Your task to perform on an android device: toggle data saver in the chrome app Image 0: 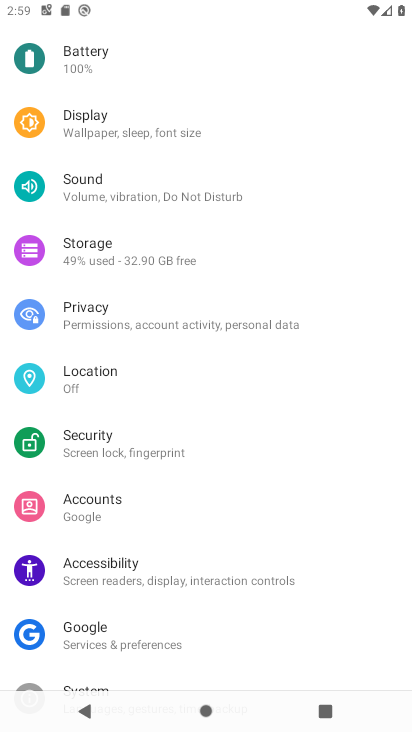
Step 0: drag from (211, 594) to (224, 1)
Your task to perform on an android device: toggle data saver in the chrome app Image 1: 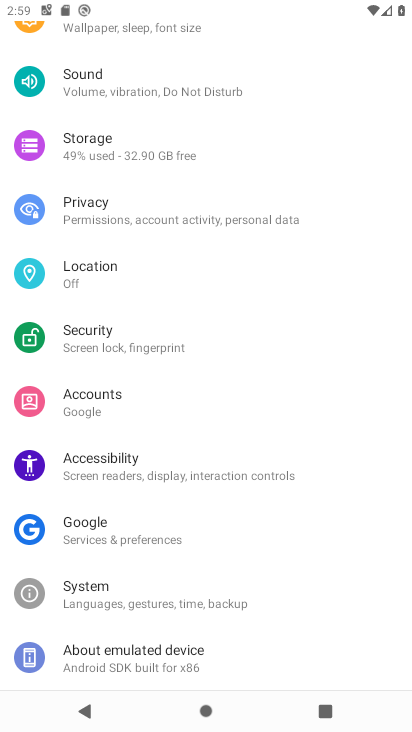
Step 1: drag from (190, 231) to (206, 605)
Your task to perform on an android device: toggle data saver in the chrome app Image 2: 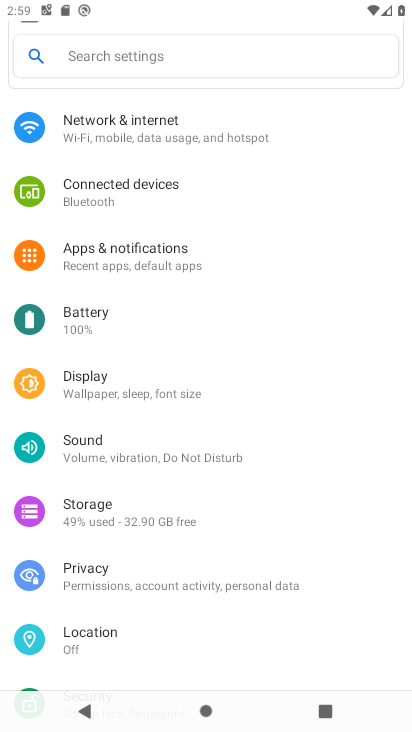
Step 2: drag from (180, 582) to (273, 101)
Your task to perform on an android device: toggle data saver in the chrome app Image 3: 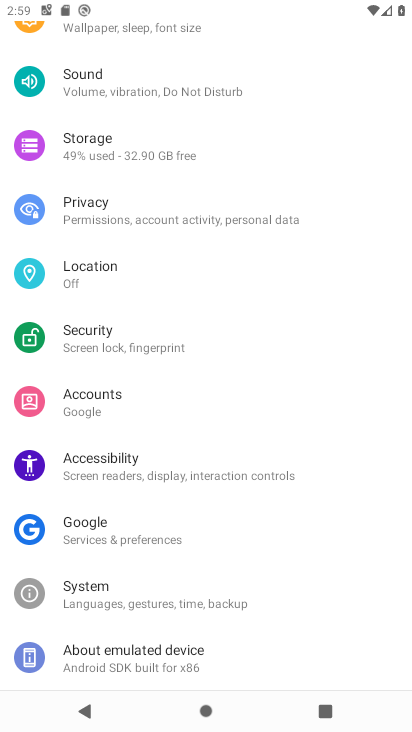
Step 3: drag from (166, 608) to (200, 341)
Your task to perform on an android device: toggle data saver in the chrome app Image 4: 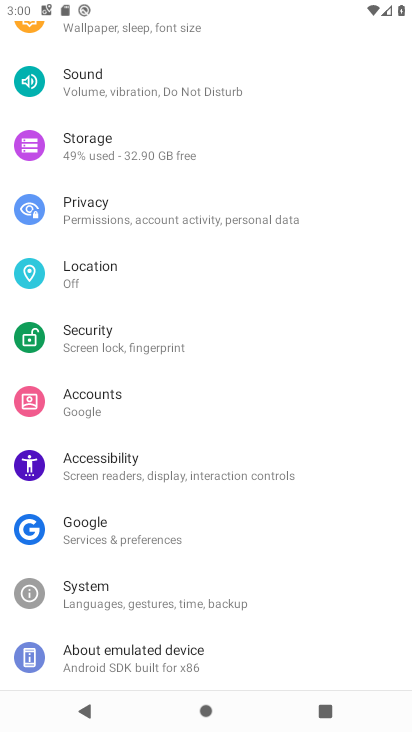
Step 4: click (123, 600)
Your task to perform on an android device: toggle data saver in the chrome app Image 5: 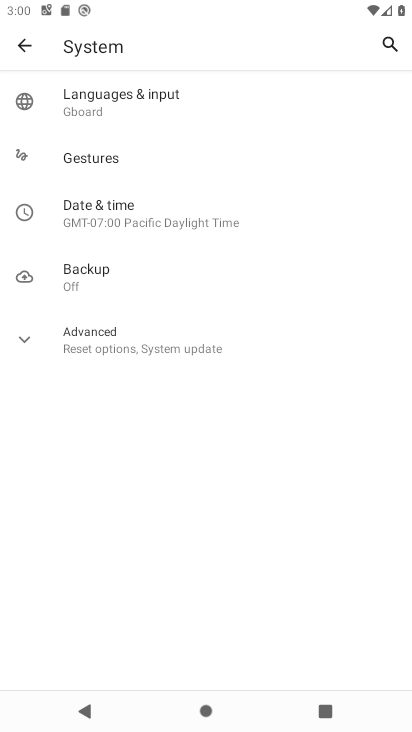
Step 5: press home button
Your task to perform on an android device: toggle data saver in the chrome app Image 6: 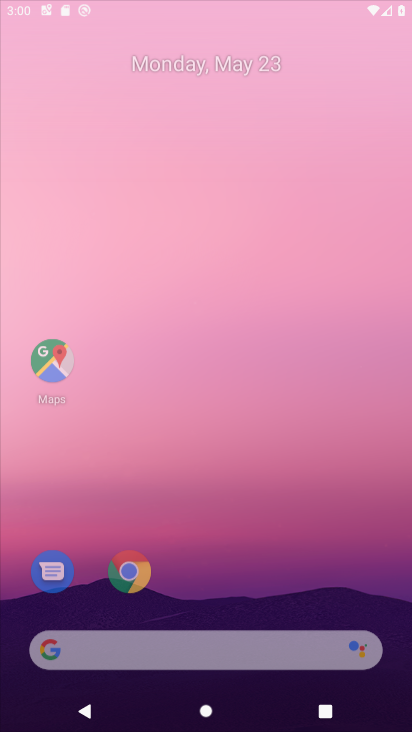
Step 6: drag from (234, 691) to (269, 199)
Your task to perform on an android device: toggle data saver in the chrome app Image 7: 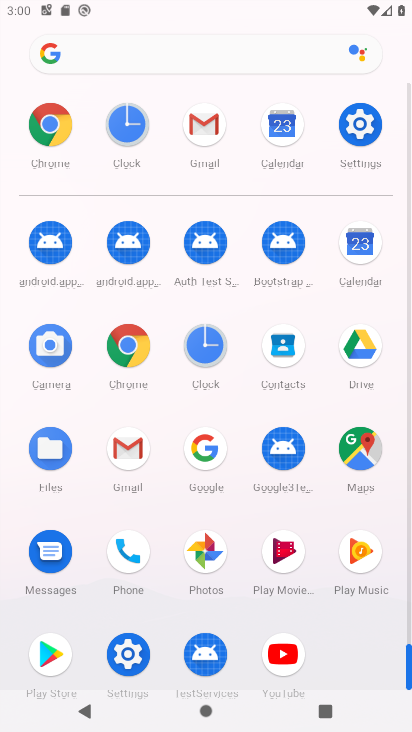
Step 7: click (118, 346)
Your task to perform on an android device: toggle data saver in the chrome app Image 8: 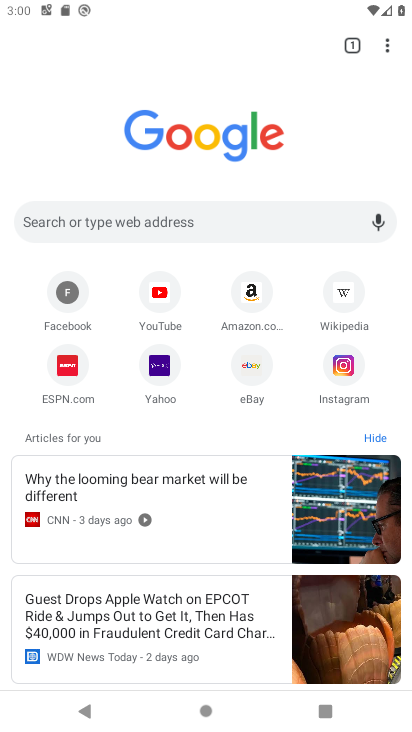
Step 8: click (381, 34)
Your task to perform on an android device: toggle data saver in the chrome app Image 9: 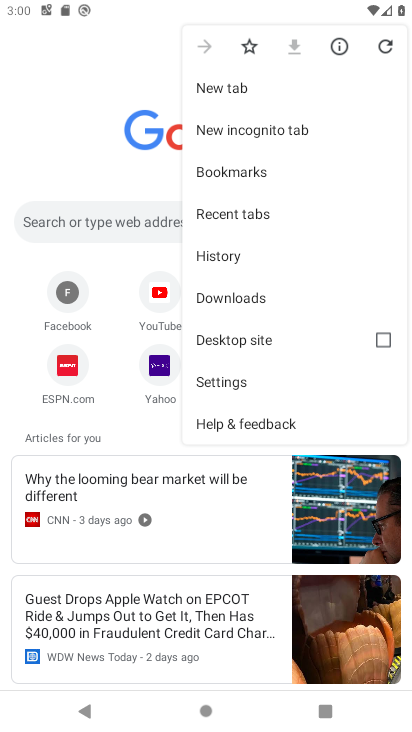
Step 9: click (235, 395)
Your task to perform on an android device: toggle data saver in the chrome app Image 10: 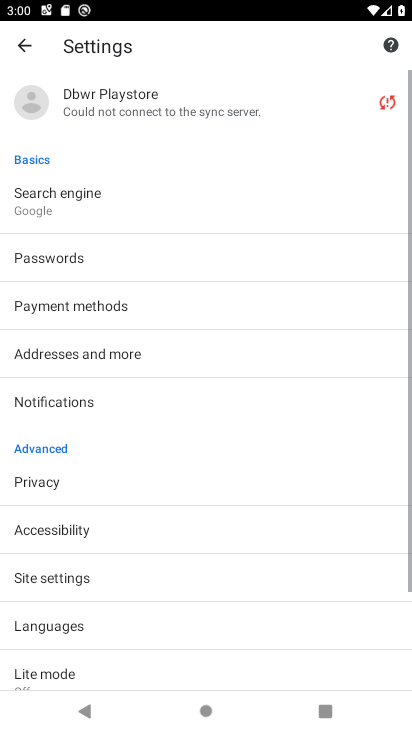
Step 10: drag from (213, 559) to (375, 115)
Your task to perform on an android device: toggle data saver in the chrome app Image 11: 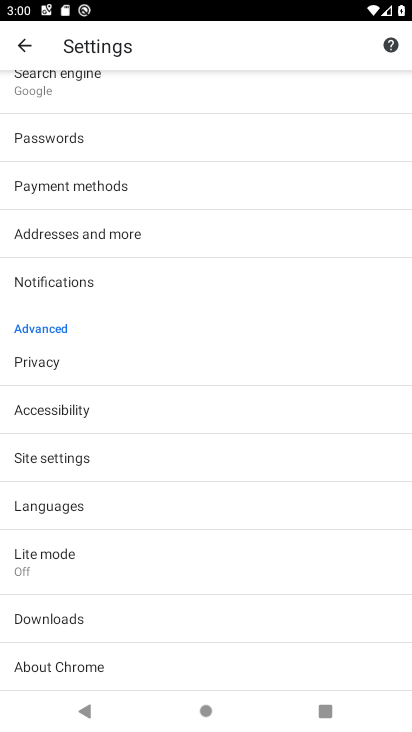
Step 11: click (48, 572)
Your task to perform on an android device: toggle data saver in the chrome app Image 12: 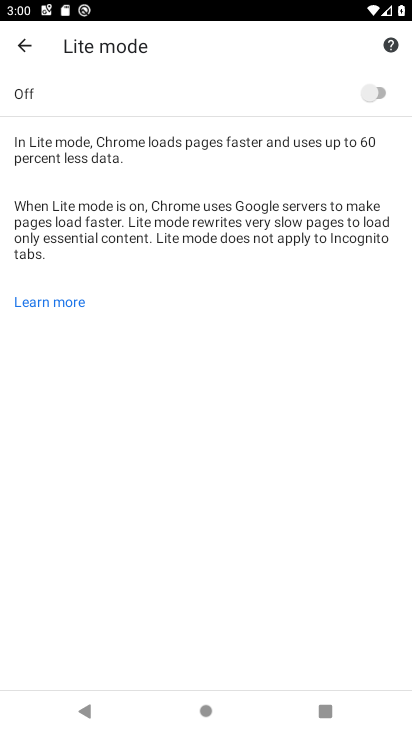
Step 12: click (368, 92)
Your task to perform on an android device: toggle data saver in the chrome app Image 13: 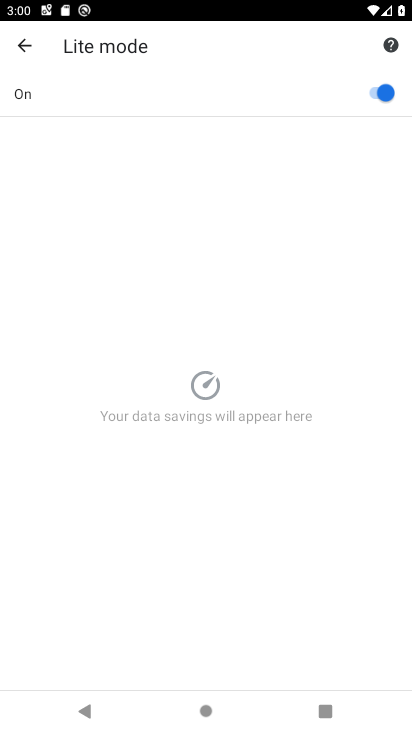
Step 13: task complete